Your task to perform on an android device: Go to Amazon Image 0: 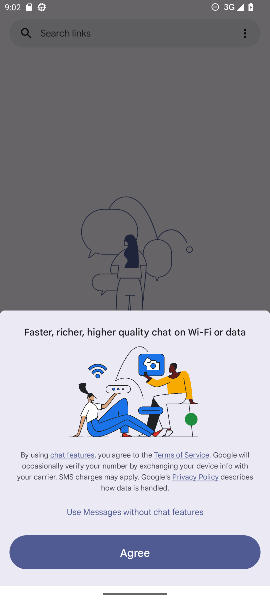
Step 0: press home button
Your task to perform on an android device: Go to Amazon Image 1: 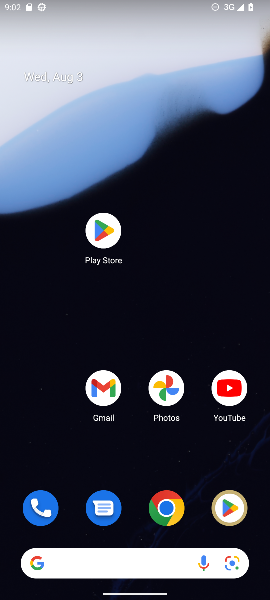
Step 1: click (185, 500)
Your task to perform on an android device: Go to Amazon Image 2: 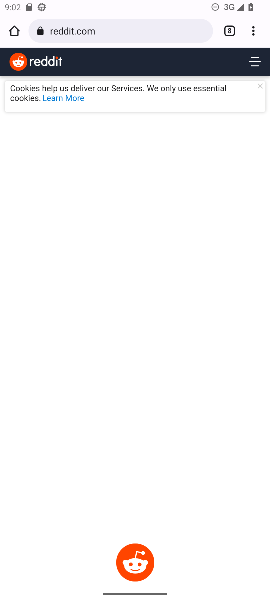
Step 2: click (229, 35)
Your task to perform on an android device: Go to Amazon Image 3: 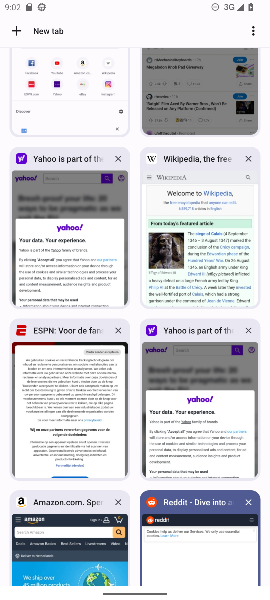
Step 3: click (14, 27)
Your task to perform on an android device: Go to Amazon Image 4: 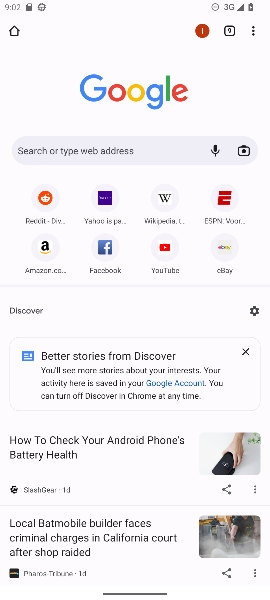
Step 4: click (33, 251)
Your task to perform on an android device: Go to Amazon Image 5: 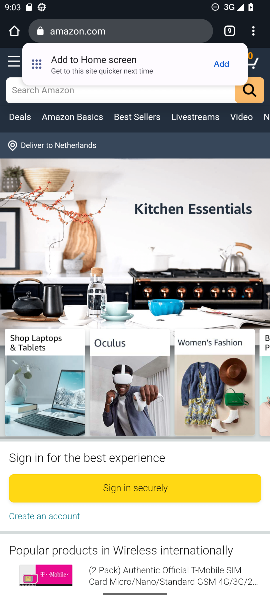
Step 5: task complete